Your task to perform on an android device: Go to CNN.com Image 0: 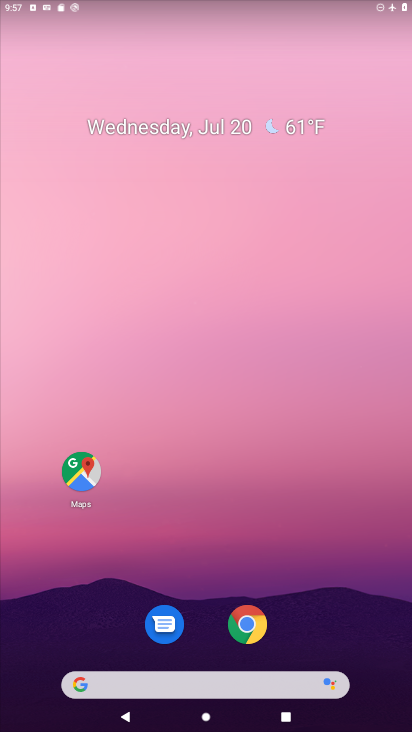
Step 0: click (261, 637)
Your task to perform on an android device: Go to CNN.com Image 1: 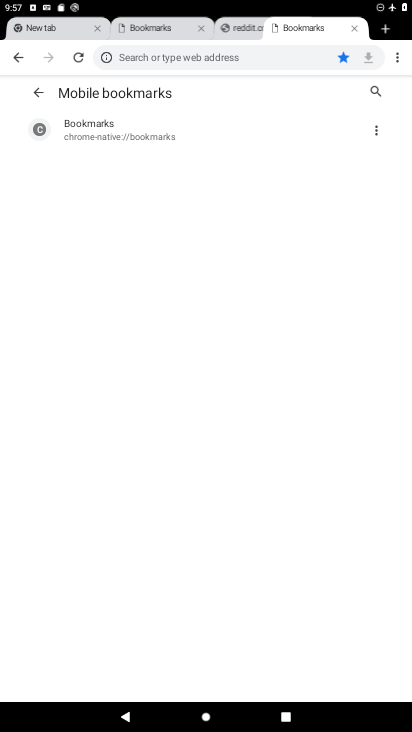
Step 1: click (383, 22)
Your task to perform on an android device: Go to CNN.com Image 2: 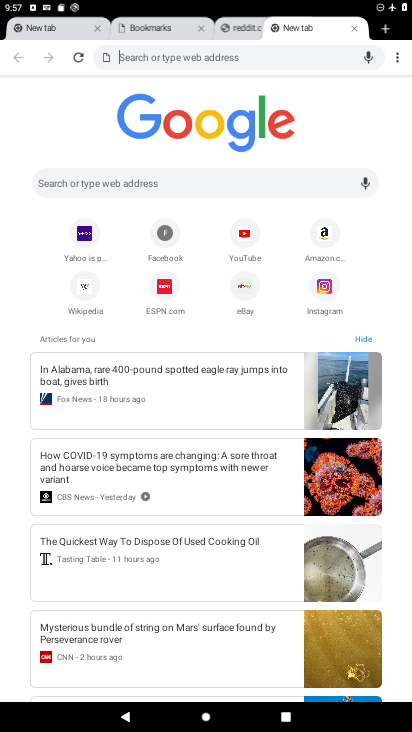
Step 2: click (146, 177)
Your task to perform on an android device: Go to CNN.com Image 3: 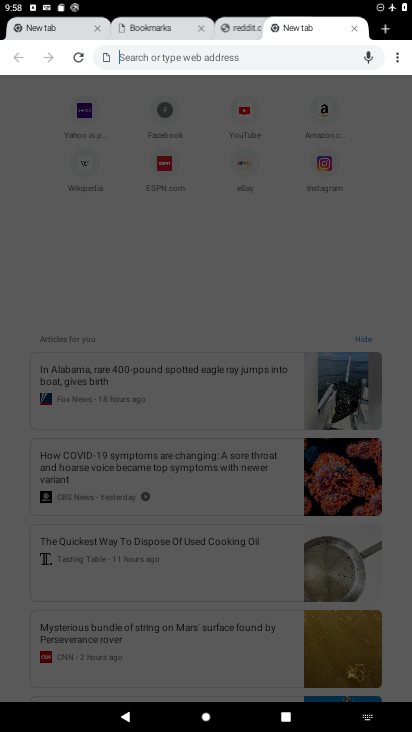
Step 3: type "CNN.com"
Your task to perform on an android device: Go to CNN.com Image 4: 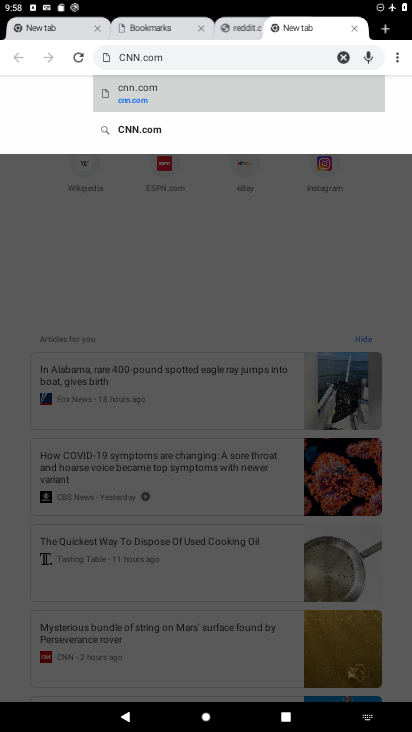
Step 4: click (145, 93)
Your task to perform on an android device: Go to CNN.com Image 5: 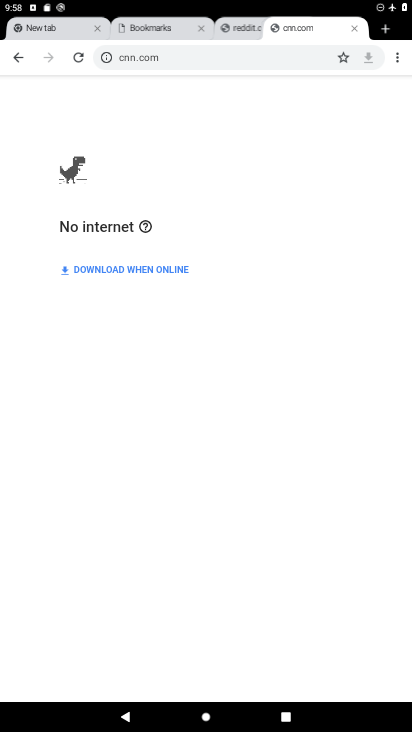
Step 5: task complete